Your task to perform on an android device: Install the News app Image 0: 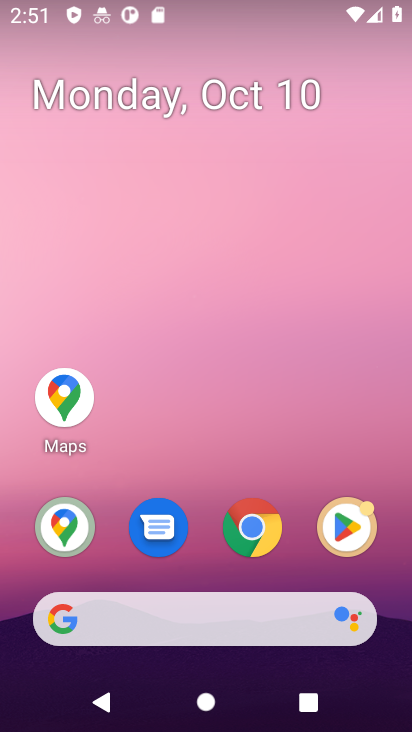
Step 0: click (342, 532)
Your task to perform on an android device: Install the News app Image 1: 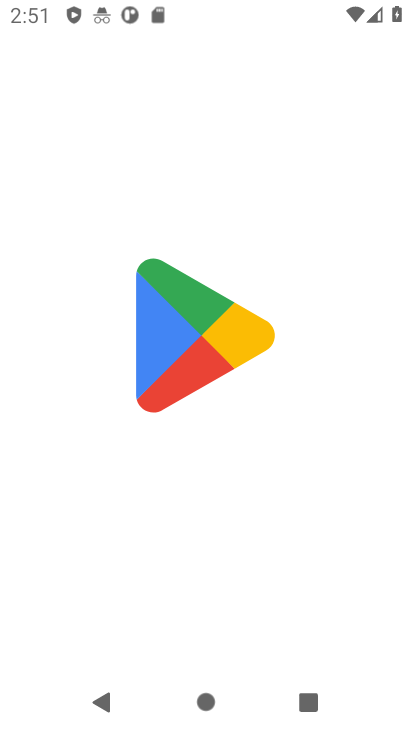
Step 1: task complete